Your task to perform on an android device: open app "Fetch Rewards" (install if not already installed) Image 0: 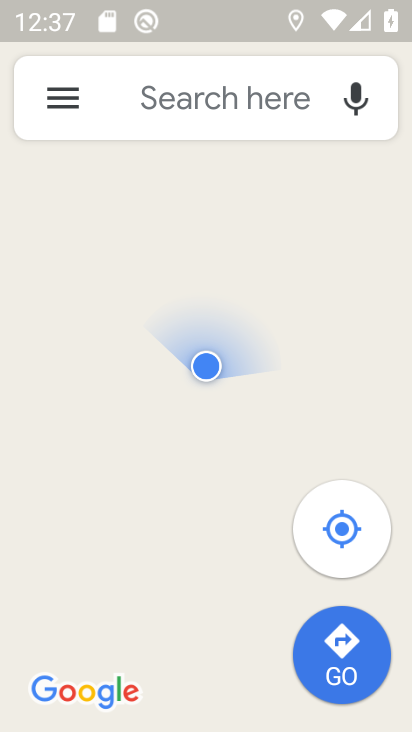
Step 0: press home button
Your task to perform on an android device: open app "Fetch Rewards" (install if not already installed) Image 1: 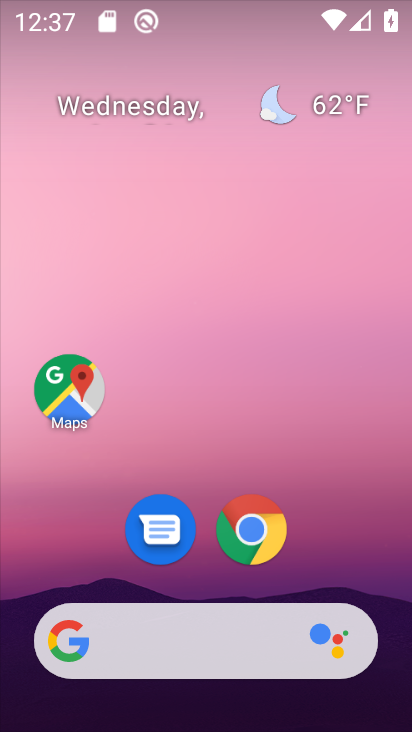
Step 1: drag from (175, 584) to (179, 314)
Your task to perform on an android device: open app "Fetch Rewards" (install if not already installed) Image 2: 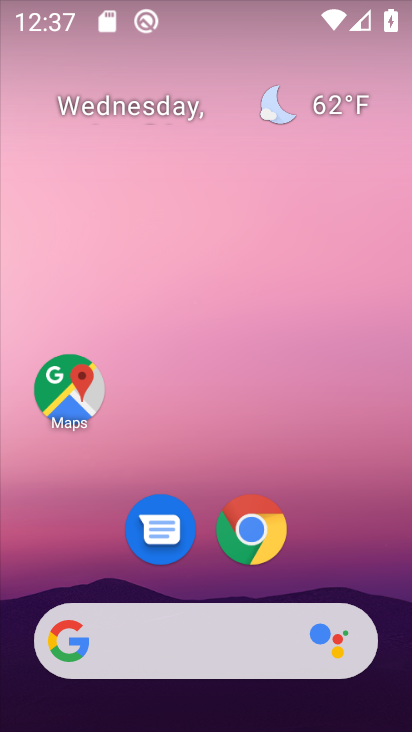
Step 2: drag from (205, 572) to (223, 73)
Your task to perform on an android device: open app "Fetch Rewards" (install if not already installed) Image 3: 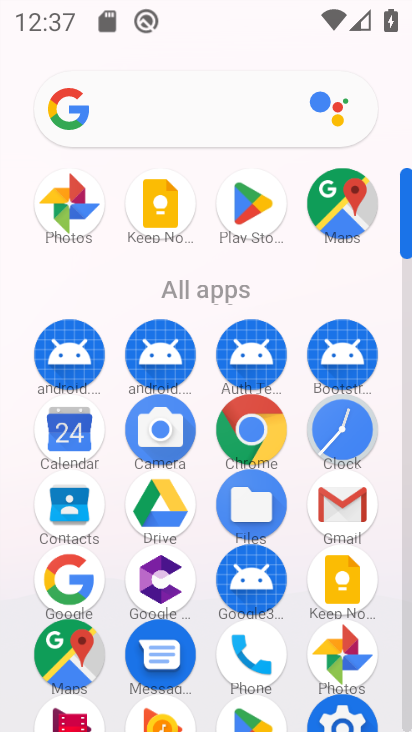
Step 3: click (252, 191)
Your task to perform on an android device: open app "Fetch Rewards" (install if not already installed) Image 4: 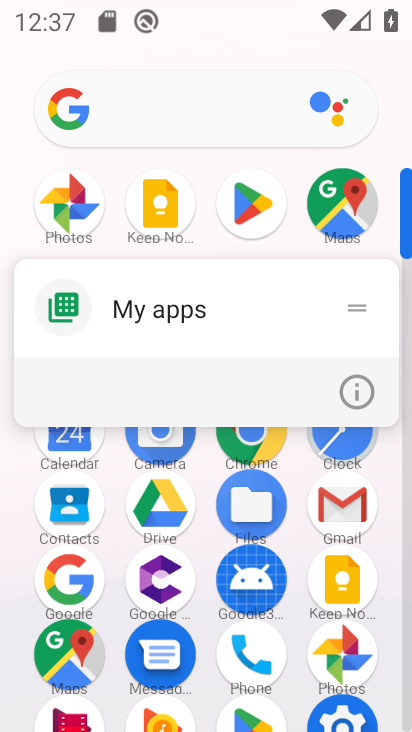
Step 4: click (239, 193)
Your task to perform on an android device: open app "Fetch Rewards" (install if not already installed) Image 5: 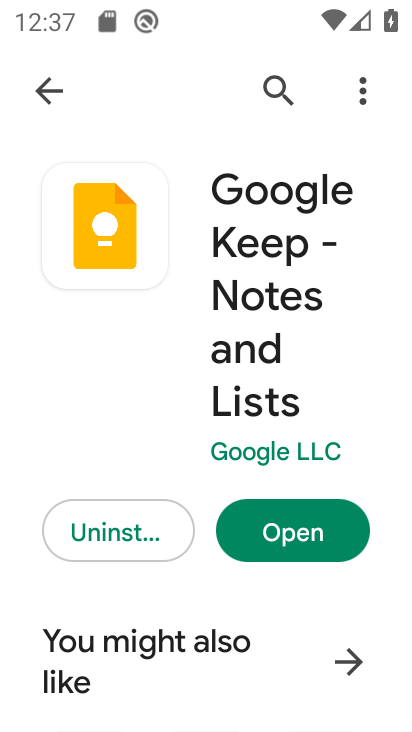
Step 5: click (42, 87)
Your task to perform on an android device: open app "Fetch Rewards" (install if not already installed) Image 6: 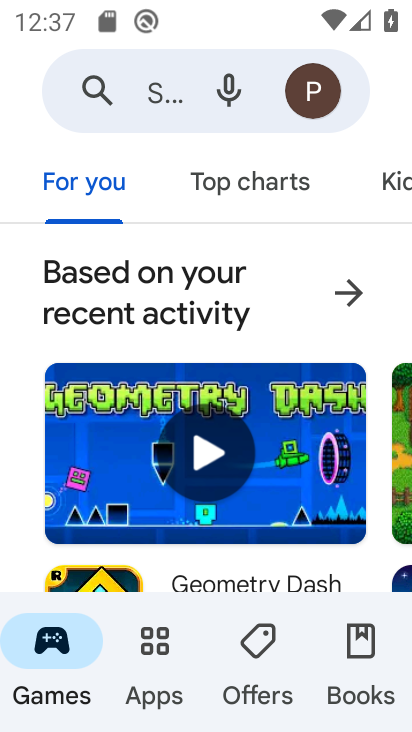
Step 6: click (154, 85)
Your task to perform on an android device: open app "Fetch Rewards" (install if not already installed) Image 7: 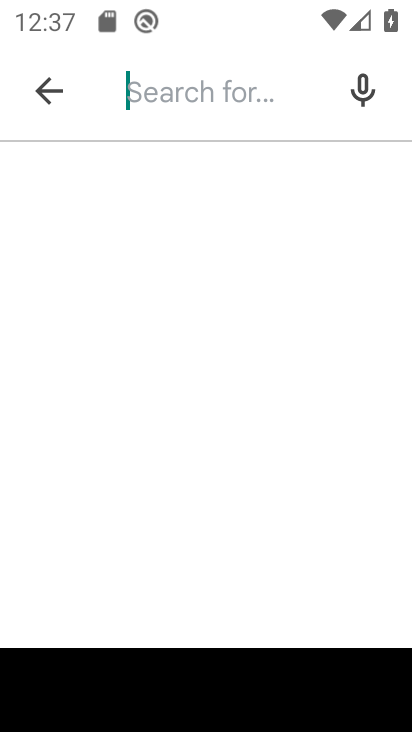
Step 7: type "Fetch Rewards "
Your task to perform on an android device: open app "Fetch Rewards" (install if not already installed) Image 8: 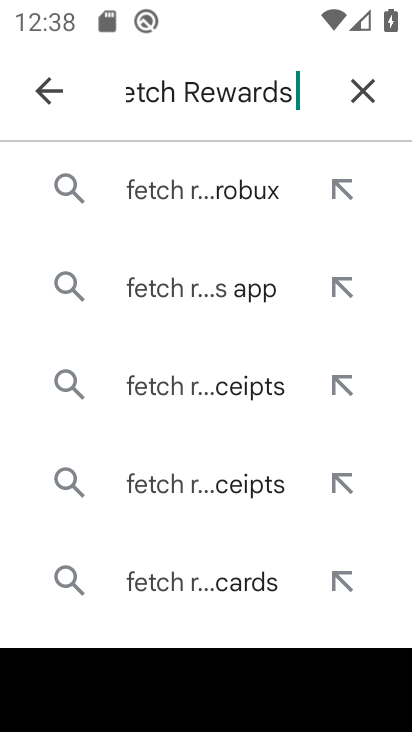
Step 8: click (181, 185)
Your task to perform on an android device: open app "Fetch Rewards" (install if not already installed) Image 9: 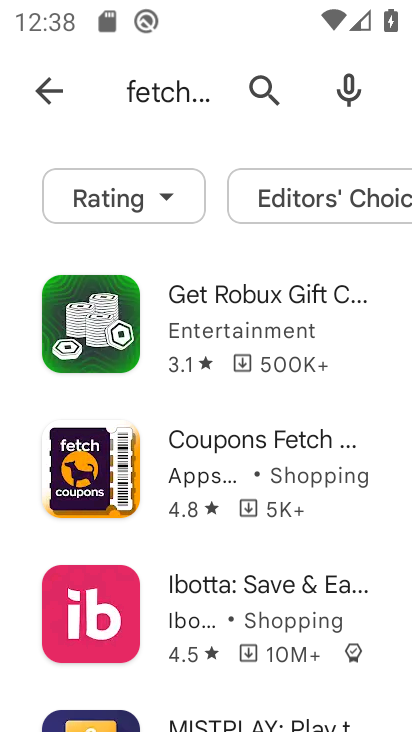
Step 9: task complete